Your task to perform on an android device: Open sound settings Image 0: 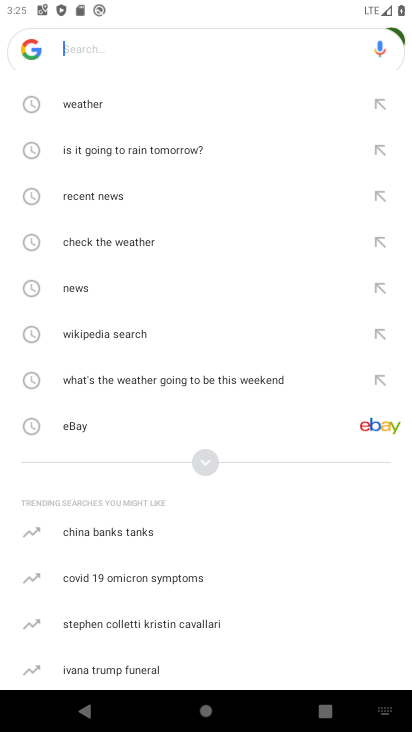
Step 0: press home button
Your task to perform on an android device: Open sound settings Image 1: 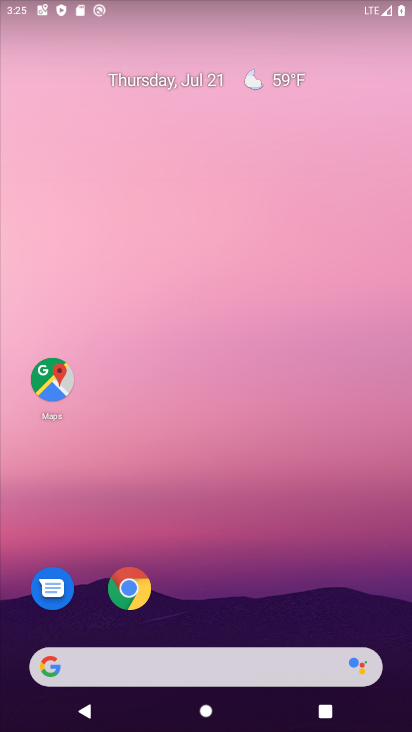
Step 1: drag from (242, 605) to (220, 93)
Your task to perform on an android device: Open sound settings Image 2: 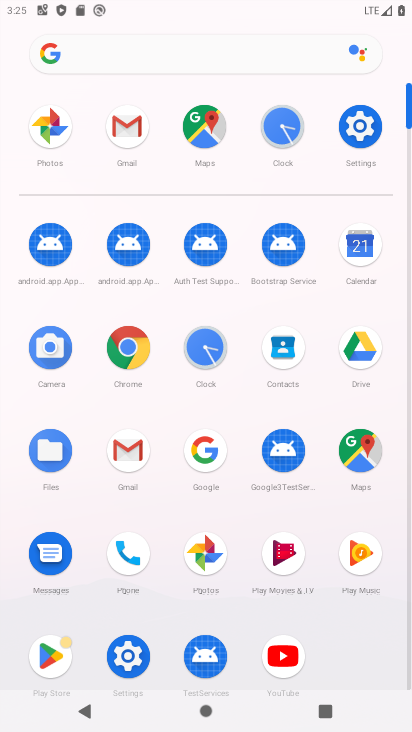
Step 2: click (136, 645)
Your task to perform on an android device: Open sound settings Image 3: 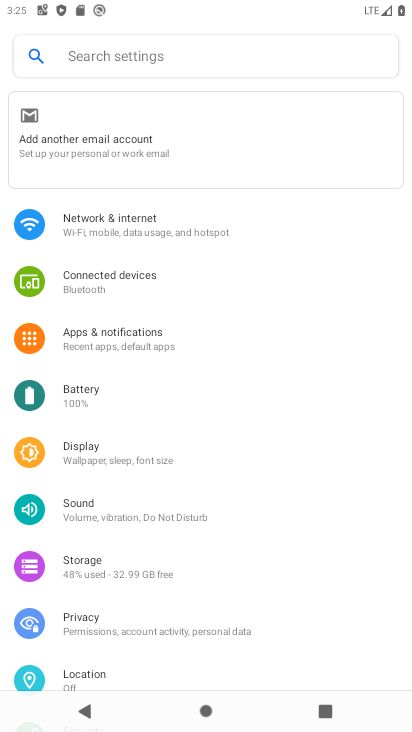
Step 3: click (179, 511)
Your task to perform on an android device: Open sound settings Image 4: 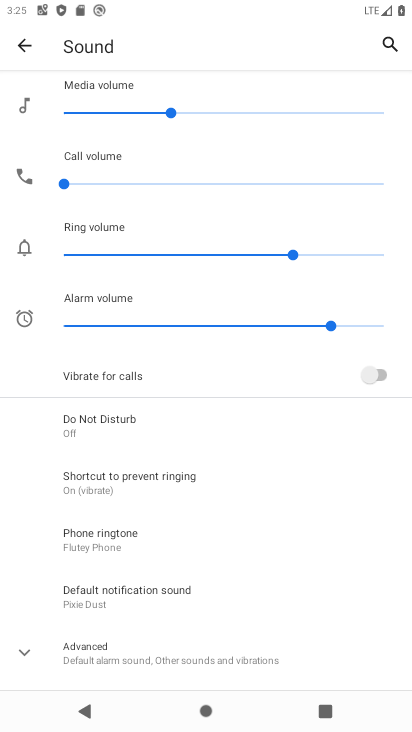
Step 4: task complete